Your task to perform on an android device: Open Google Image 0: 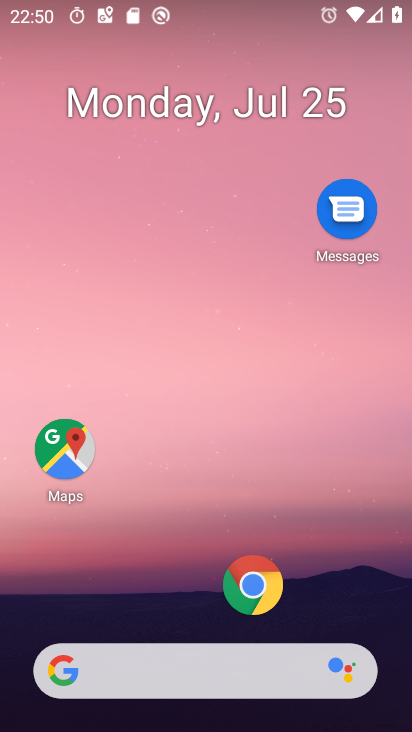
Step 0: press home button
Your task to perform on an android device: Open Google Image 1: 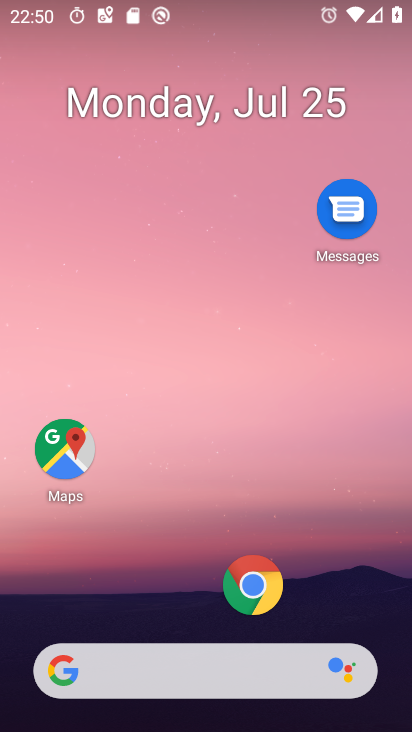
Step 1: drag from (179, 678) to (327, 80)
Your task to perform on an android device: Open Google Image 2: 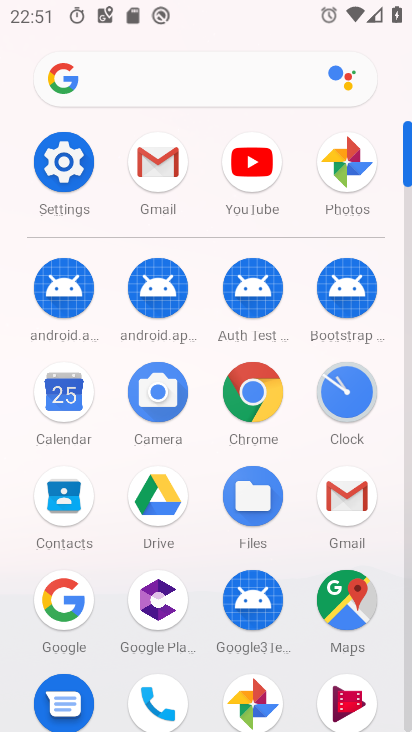
Step 2: click (67, 601)
Your task to perform on an android device: Open Google Image 3: 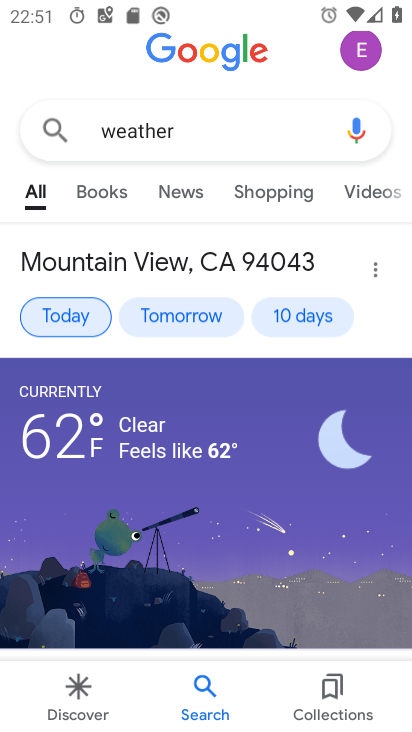
Step 3: task complete